Your task to perform on an android device: Go to Android settings Image 0: 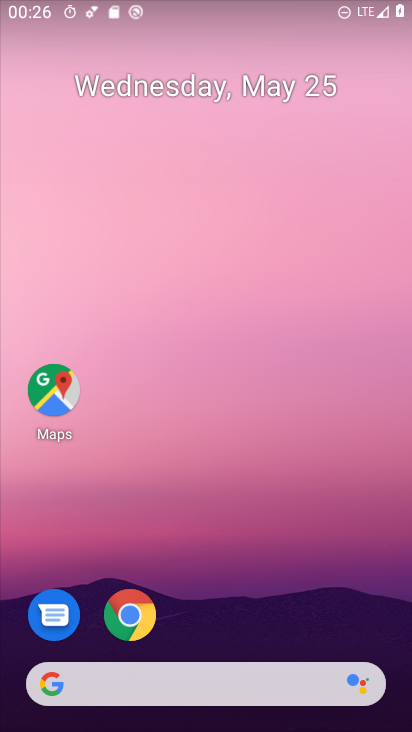
Step 0: drag from (268, 687) to (186, 0)
Your task to perform on an android device: Go to Android settings Image 1: 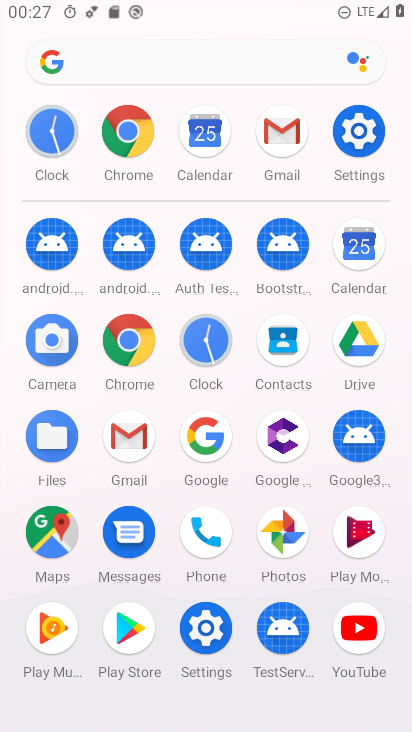
Step 1: click (352, 139)
Your task to perform on an android device: Go to Android settings Image 2: 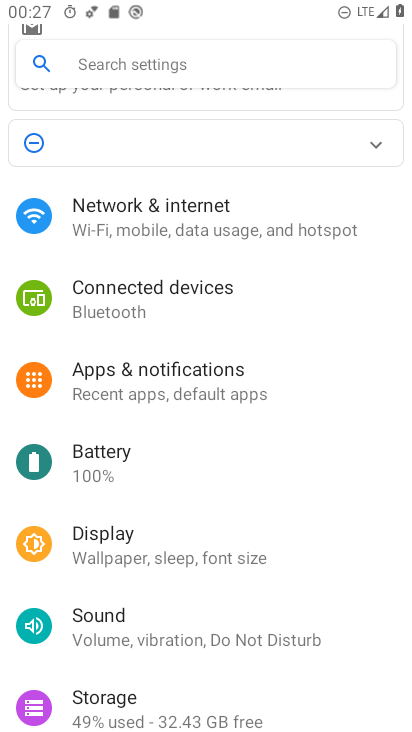
Step 2: click (145, 59)
Your task to perform on an android device: Go to Android settings Image 3: 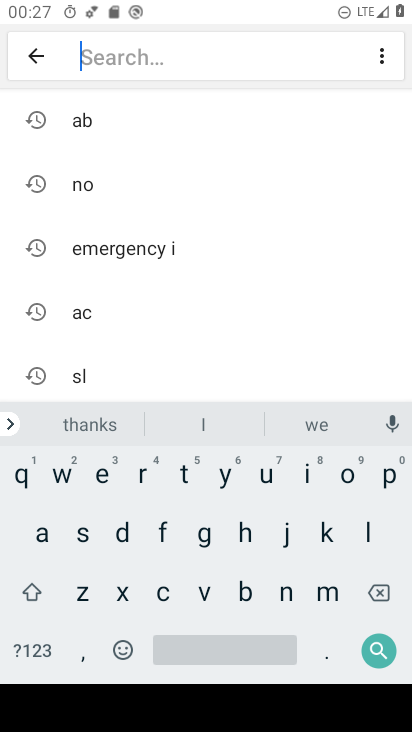
Step 3: click (42, 527)
Your task to perform on an android device: Go to Android settings Image 4: 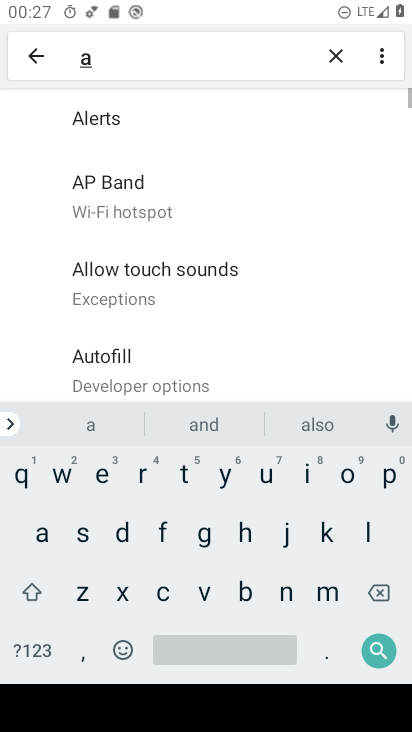
Step 4: click (289, 591)
Your task to perform on an android device: Go to Android settings Image 5: 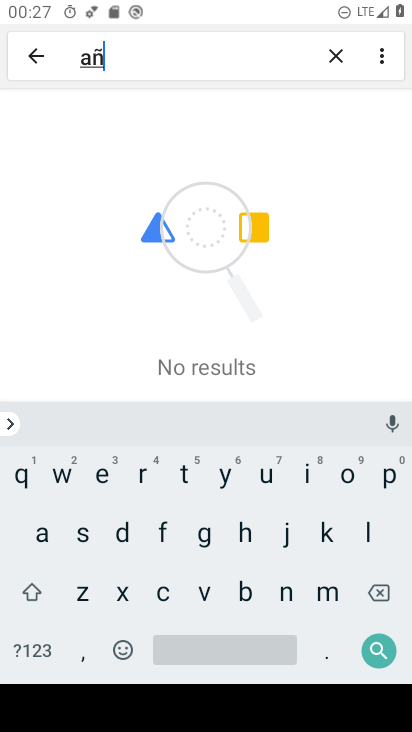
Step 5: click (377, 608)
Your task to perform on an android device: Go to Android settings Image 6: 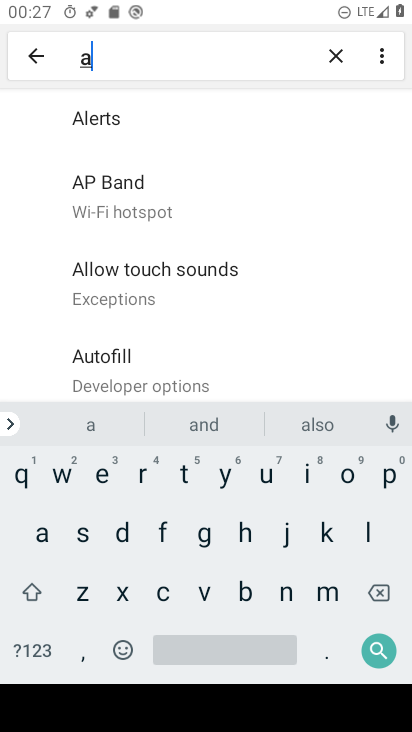
Step 6: click (287, 588)
Your task to perform on an android device: Go to Android settings Image 7: 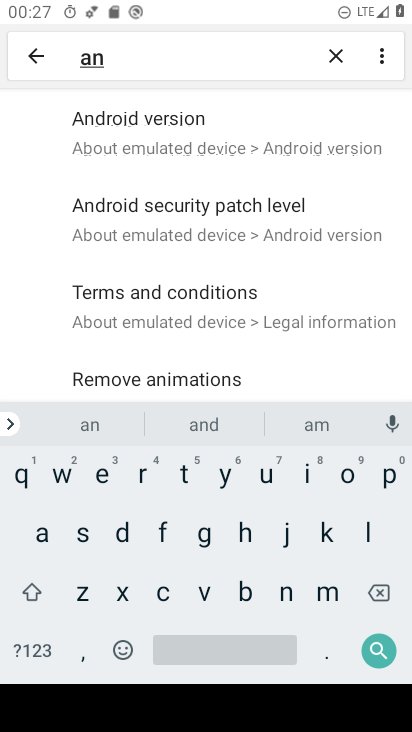
Step 7: click (185, 122)
Your task to perform on an android device: Go to Android settings Image 8: 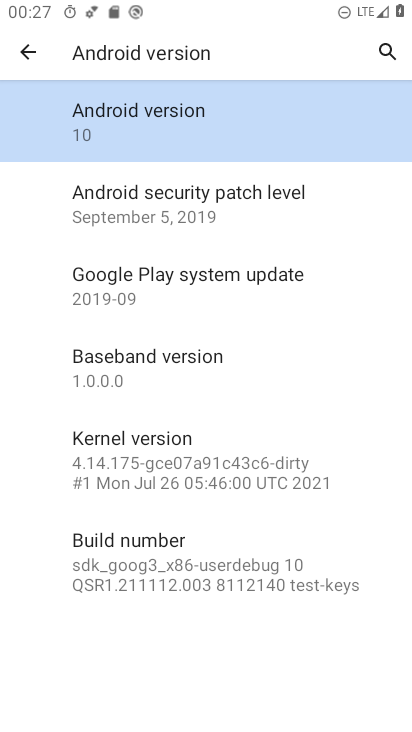
Step 8: task complete